Your task to perform on an android device: Open Amazon Image 0: 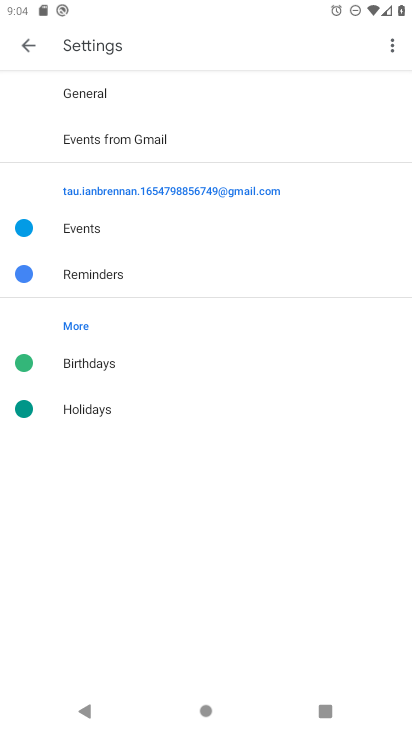
Step 0: press home button
Your task to perform on an android device: Open Amazon Image 1: 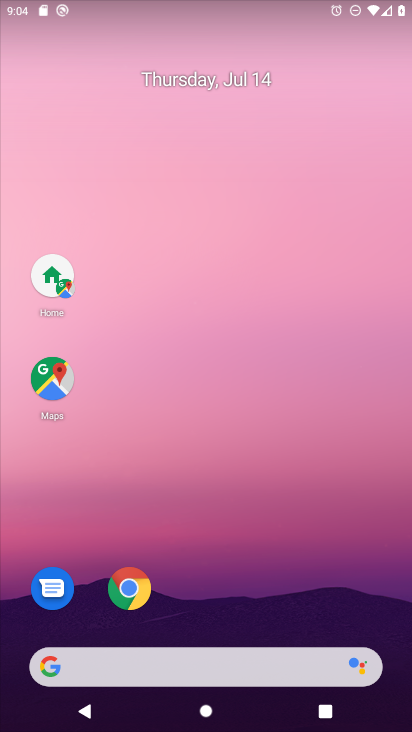
Step 1: click (102, 671)
Your task to perform on an android device: Open Amazon Image 2: 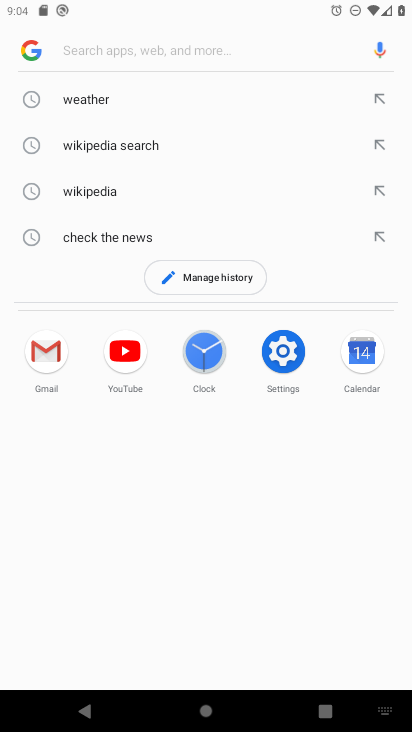
Step 2: type "Amazon"
Your task to perform on an android device: Open Amazon Image 3: 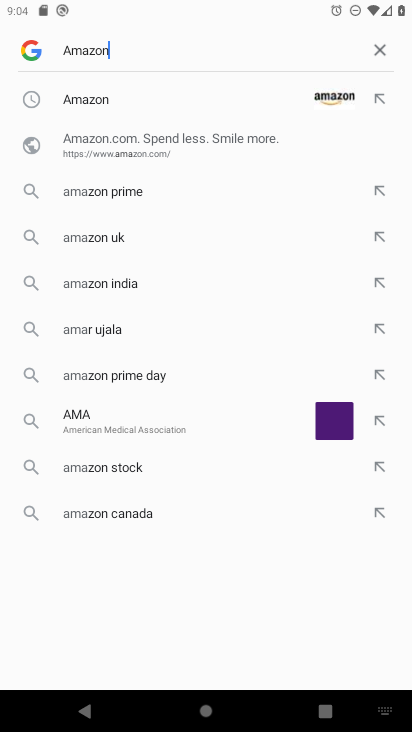
Step 3: type ""
Your task to perform on an android device: Open Amazon Image 4: 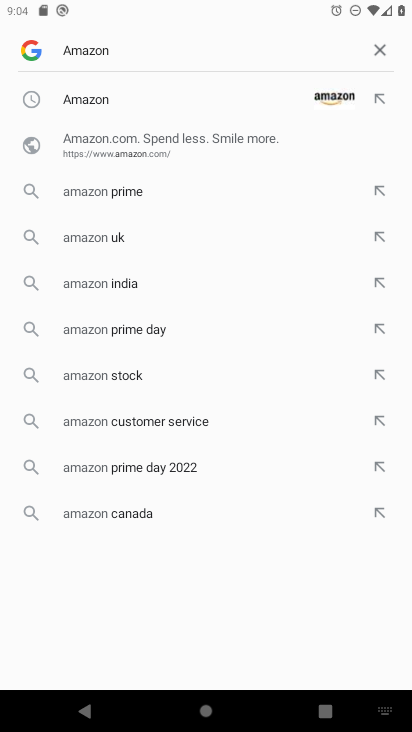
Step 4: click (282, 95)
Your task to perform on an android device: Open Amazon Image 5: 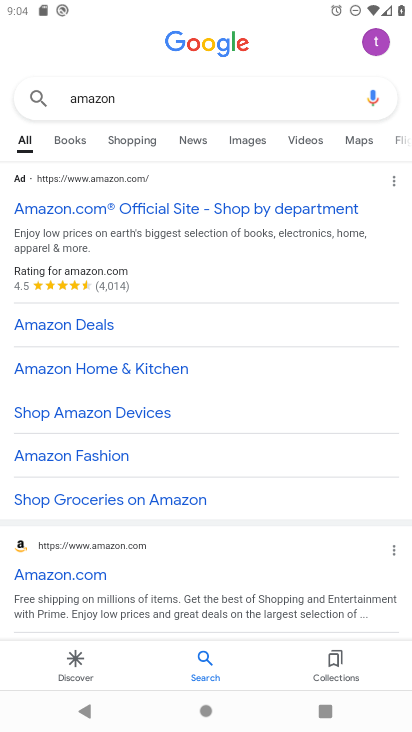
Step 5: task complete